Your task to perform on an android device: delete browsing data in the chrome app Image 0: 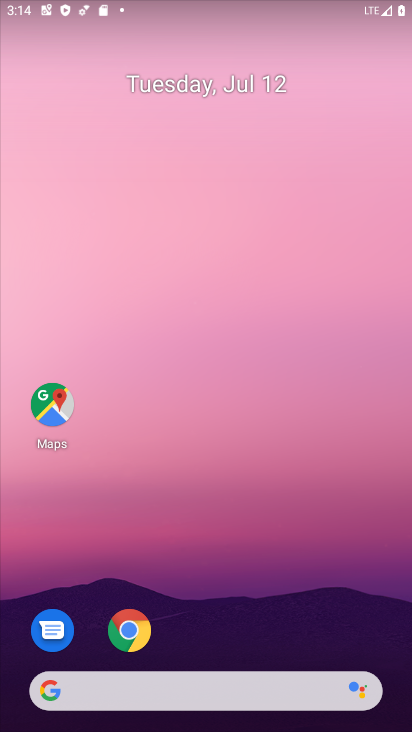
Step 0: drag from (252, 598) to (202, 19)
Your task to perform on an android device: delete browsing data in the chrome app Image 1: 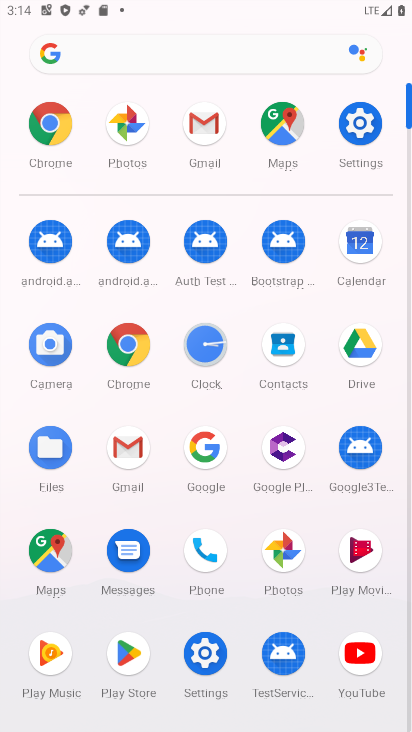
Step 1: click (138, 353)
Your task to perform on an android device: delete browsing data in the chrome app Image 2: 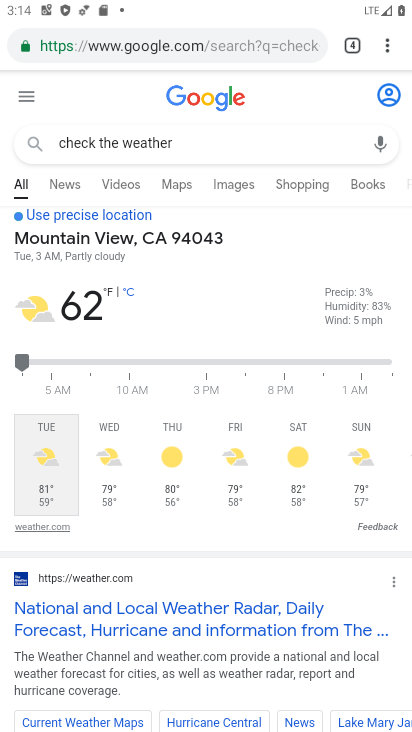
Step 2: drag from (391, 46) to (276, 515)
Your task to perform on an android device: delete browsing data in the chrome app Image 3: 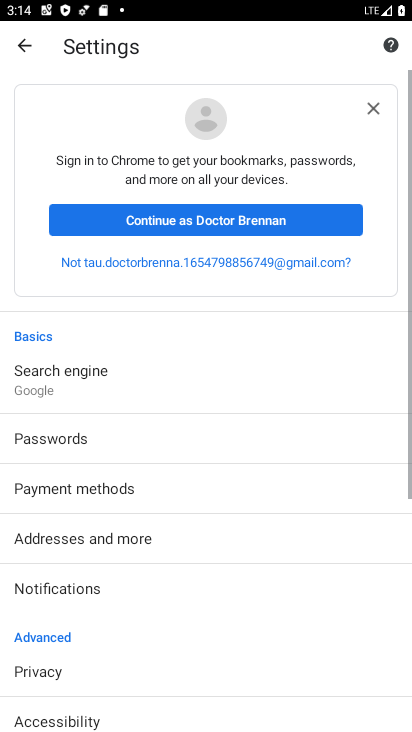
Step 3: drag from (182, 556) to (185, 172)
Your task to perform on an android device: delete browsing data in the chrome app Image 4: 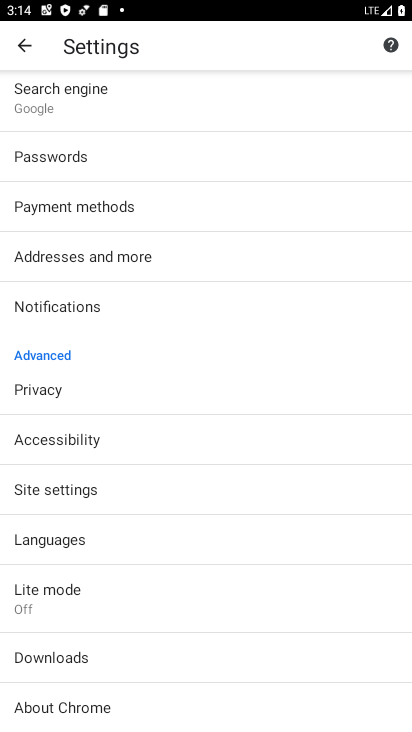
Step 4: click (86, 399)
Your task to perform on an android device: delete browsing data in the chrome app Image 5: 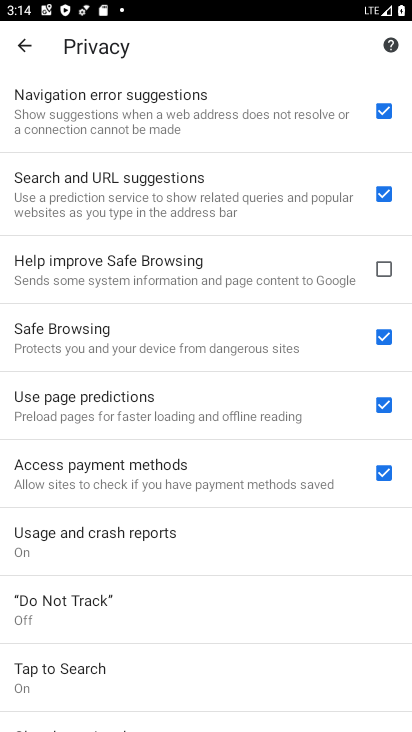
Step 5: drag from (207, 654) to (257, 155)
Your task to perform on an android device: delete browsing data in the chrome app Image 6: 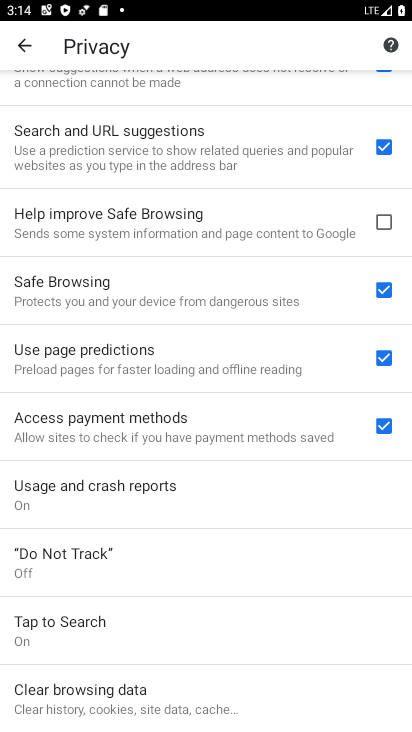
Step 6: click (136, 704)
Your task to perform on an android device: delete browsing data in the chrome app Image 7: 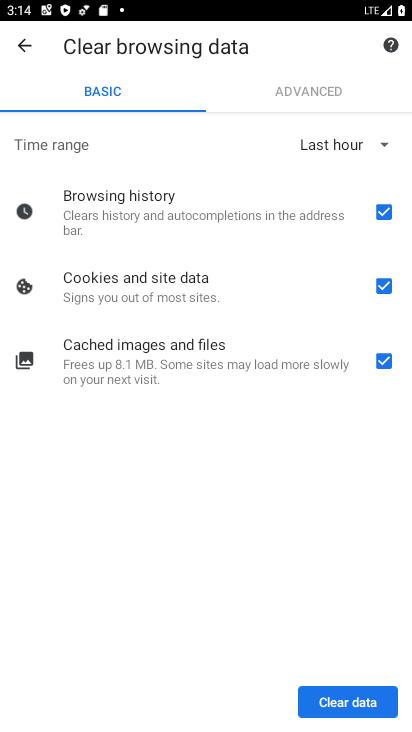
Step 7: click (339, 697)
Your task to perform on an android device: delete browsing data in the chrome app Image 8: 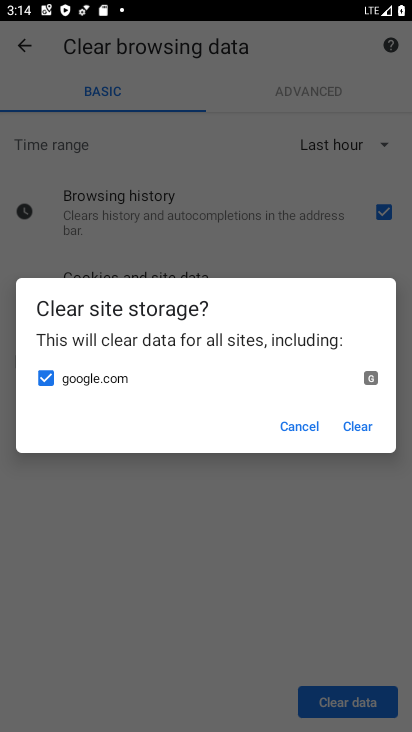
Step 8: click (358, 429)
Your task to perform on an android device: delete browsing data in the chrome app Image 9: 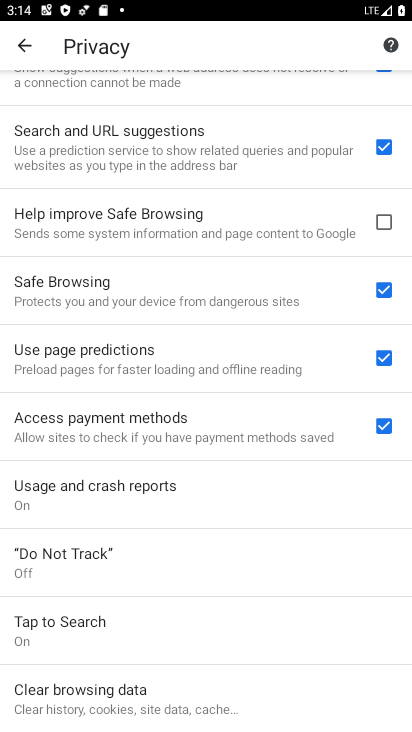
Step 9: task complete